Your task to perform on an android device: Open sound settings Image 0: 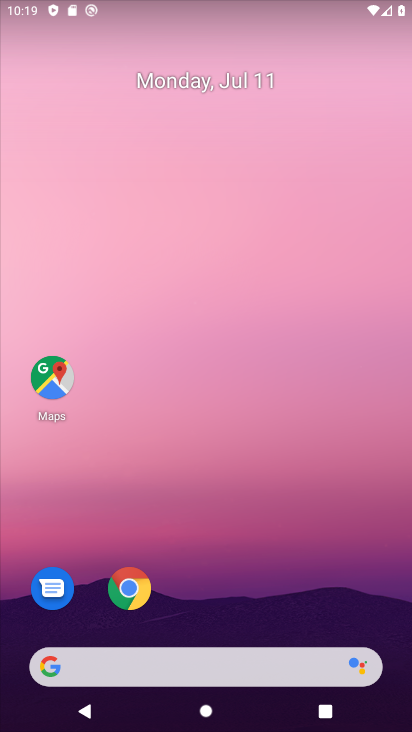
Step 0: drag from (259, 576) to (195, 204)
Your task to perform on an android device: Open sound settings Image 1: 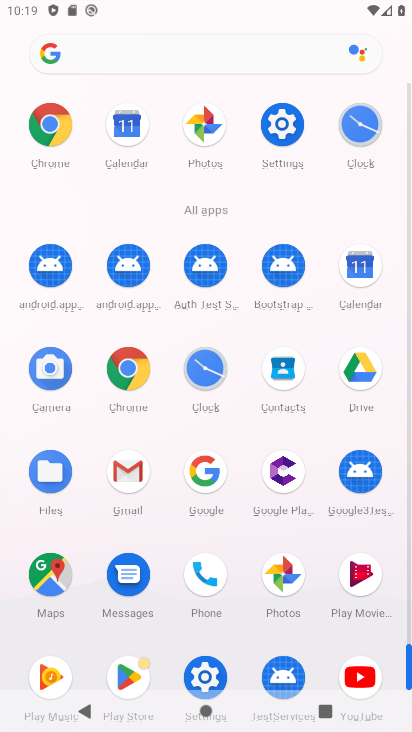
Step 1: click (284, 119)
Your task to perform on an android device: Open sound settings Image 2: 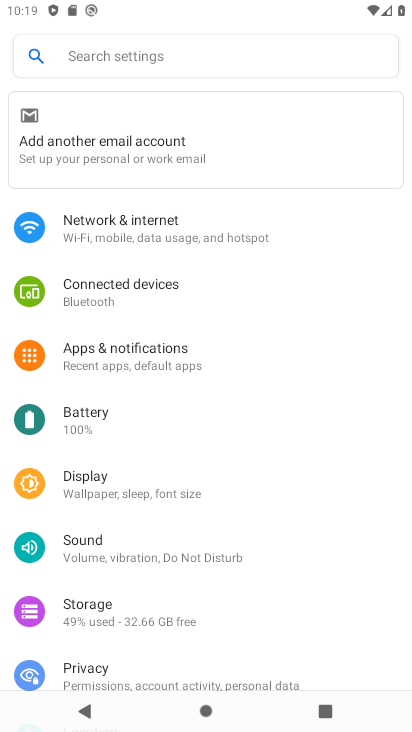
Step 2: click (84, 551)
Your task to perform on an android device: Open sound settings Image 3: 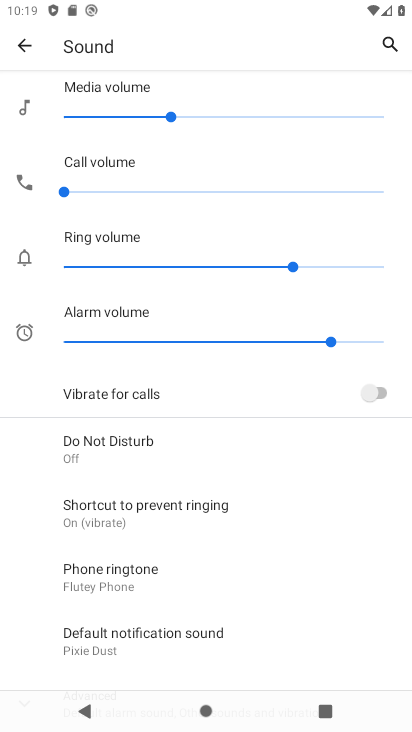
Step 3: task complete